Your task to perform on an android device: find photos in the google photos app Image 0: 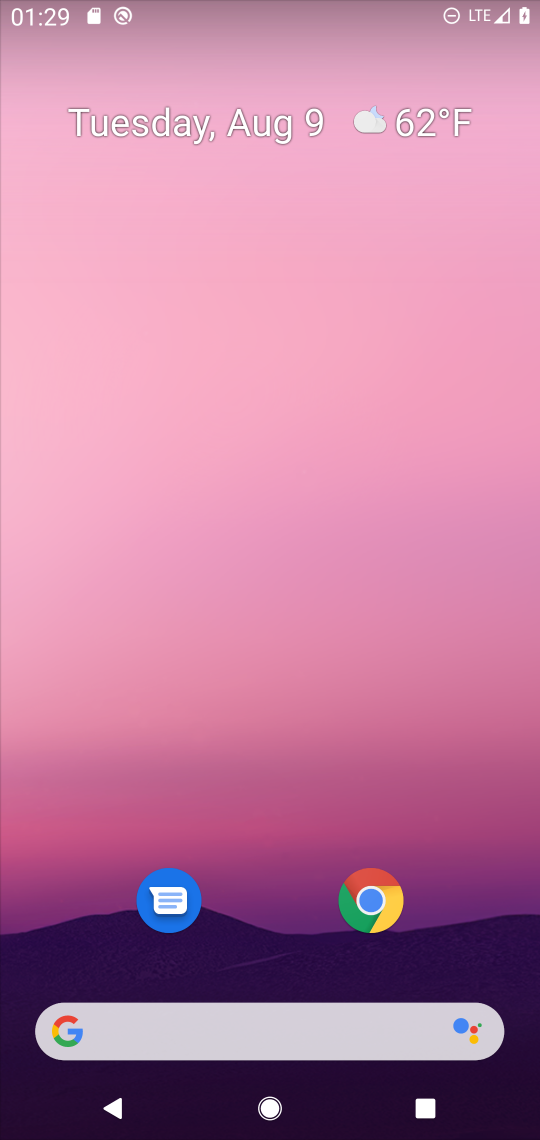
Step 0: press home button
Your task to perform on an android device: find photos in the google photos app Image 1: 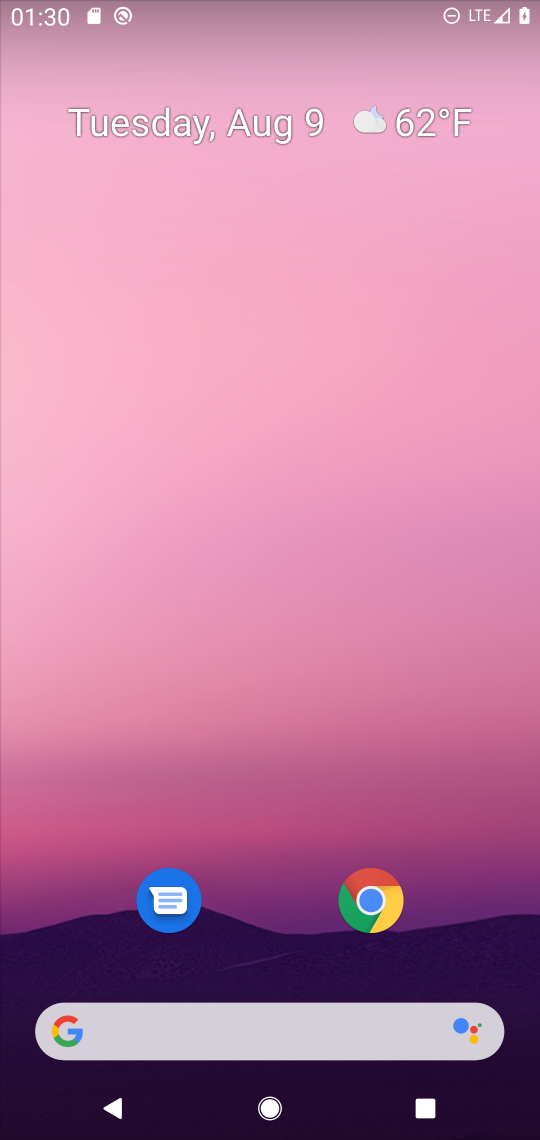
Step 1: drag from (234, 943) to (325, 126)
Your task to perform on an android device: find photos in the google photos app Image 2: 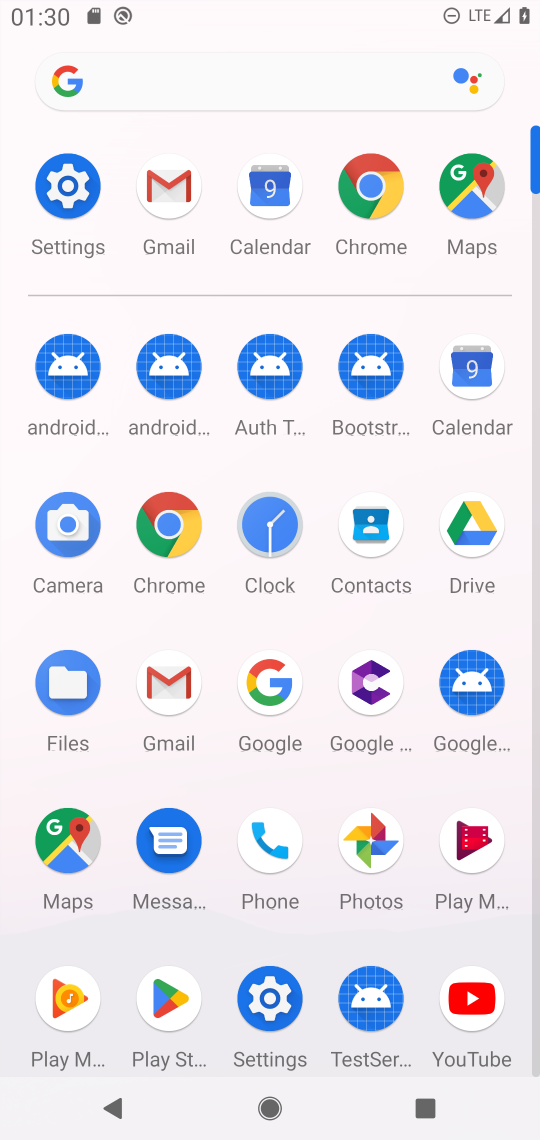
Step 2: click (381, 842)
Your task to perform on an android device: find photos in the google photos app Image 3: 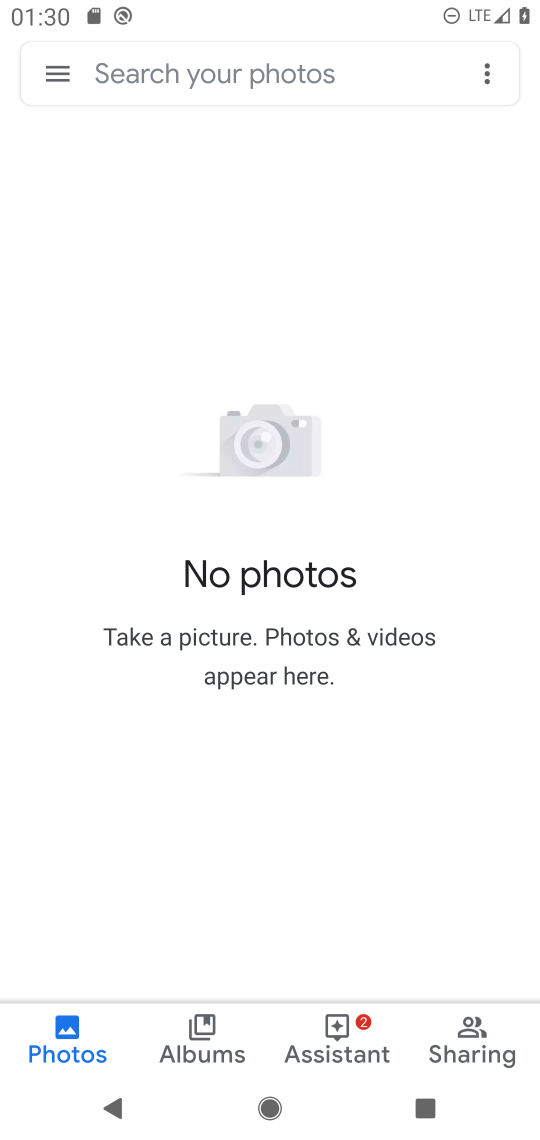
Step 3: task complete